Your task to perform on an android device: When is my next appointment? Image 0: 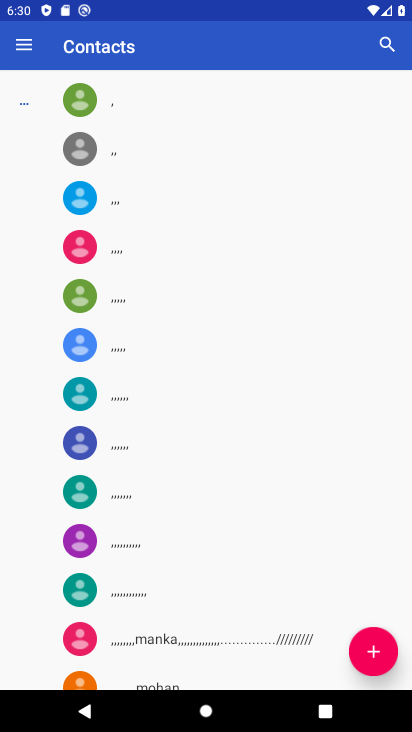
Step 0: press home button
Your task to perform on an android device: When is my next appointment? Image 1: 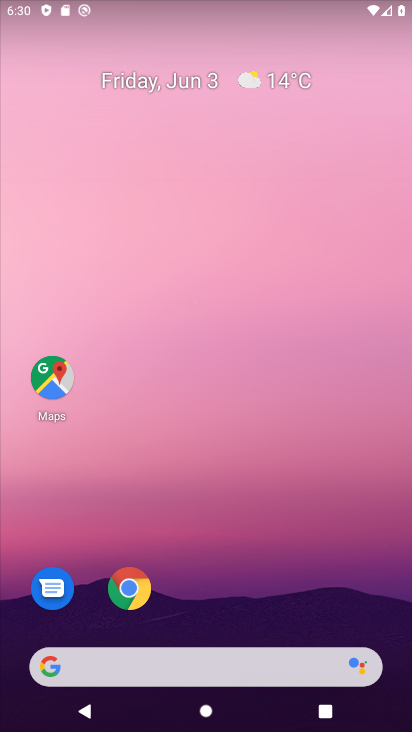
Step 1: click (122, 94)
Your task to perform on an android device: When is my next appointment? Image 2: 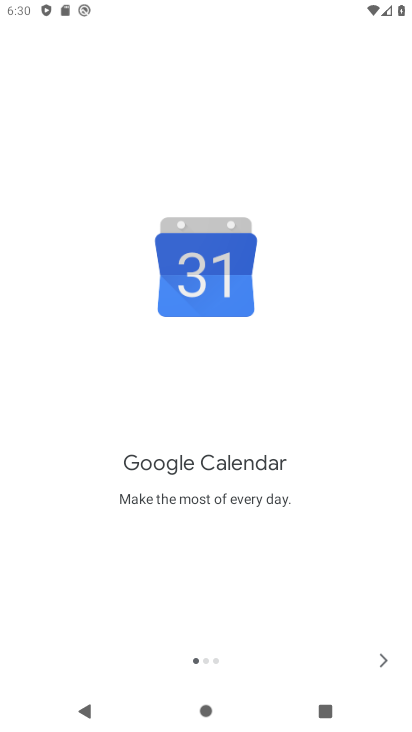
Step 2: click (396, 666)
Your task to perform on an android device: When is my next appointment? Image 3: 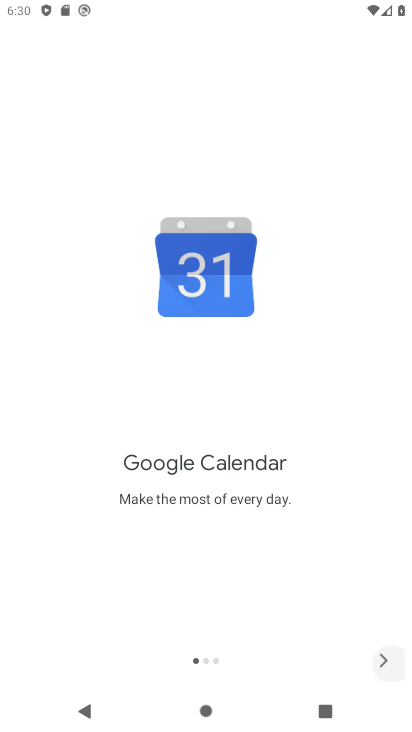
Step 3: click (396, 666)
Your task to perform on an android device: When is my next appointment? Image 4: 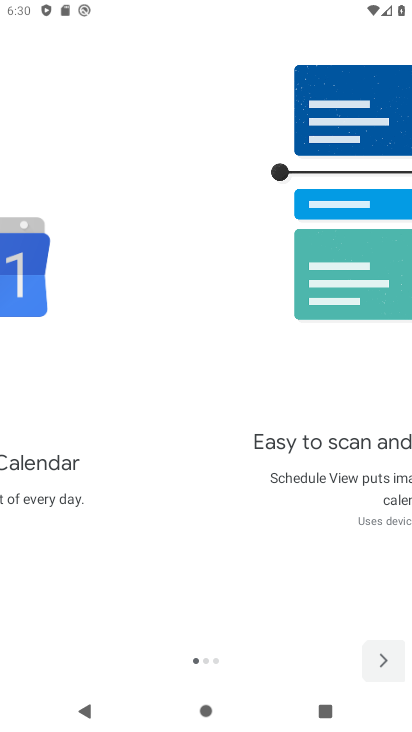
Step 4: click (396, 666)
Your task to perform on an android device: When is my next appointment? Image 5: 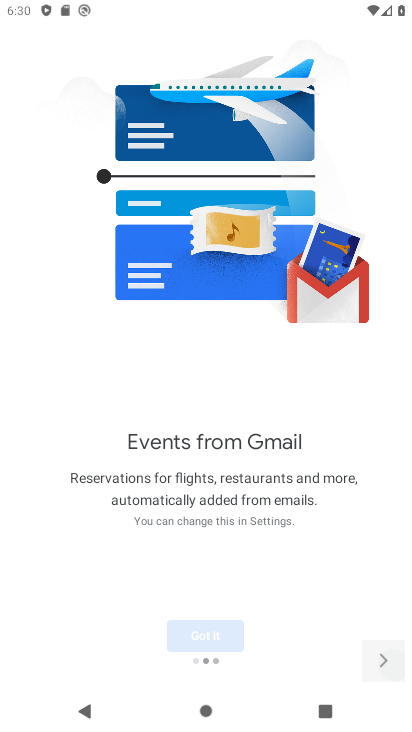
Step 5: click (396, 666)
Your task to perform on an android device: When is my next appointment? Image 6: 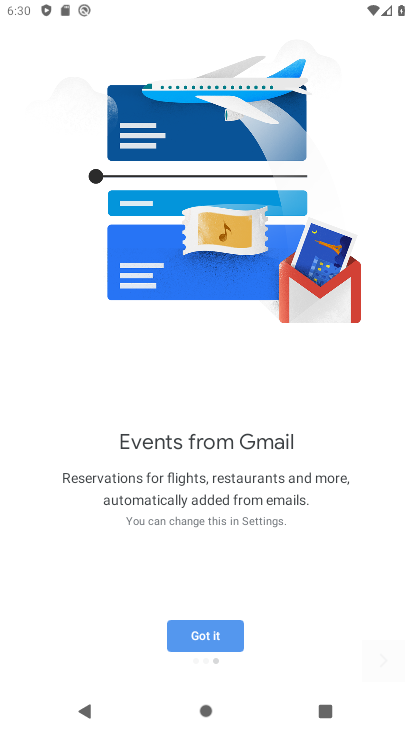
Step 6: click (396, 666)
Your task to perform on an android device: When is my next appointment? Image 7: 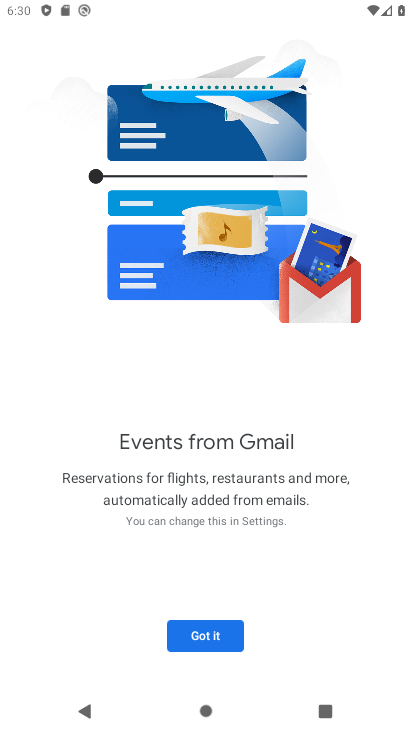
Step 7: click (396, 666)
Your task to perform on an android device: When is my next appointment? Image 8: 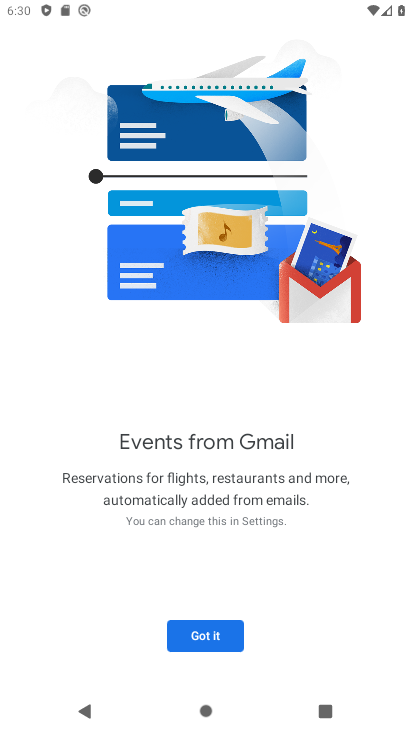
Step 8: click (396, 666)
Your task to perform on an android device: When is my next appointment? Image 9: 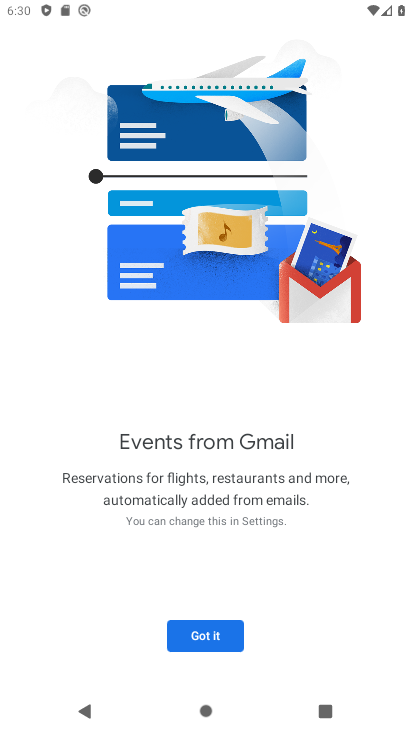
Step 9: click (197, 646)
Your task to perform on an android device: When is my next appointment? Image 10: 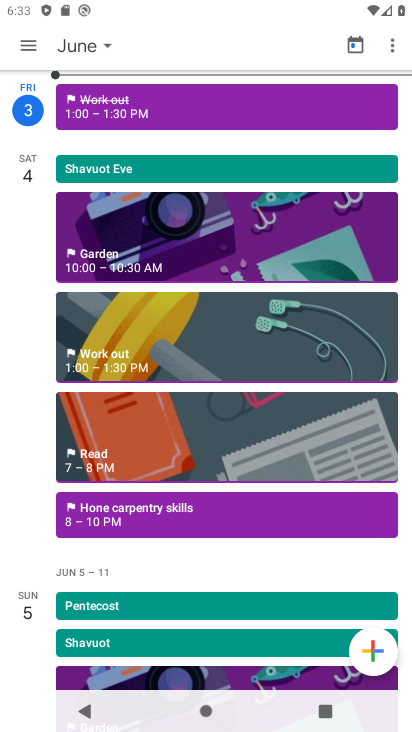
Step 10: click (72, 44)
Your task to perform on an android device: When is my next appointment? Image 11: 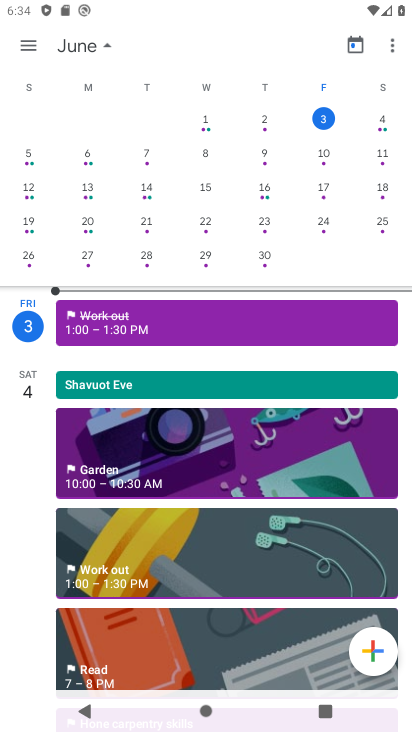
Step 11: task complete